Your task to perform on an android device: turn pop-ups off in chrome Image 0: 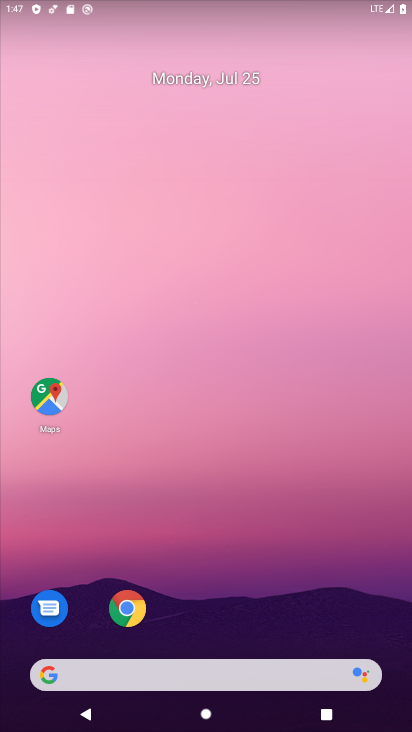
Step 0: click (133, 612)
Your task to perform on an android device: turn pop-ups off in chrome Image 1: 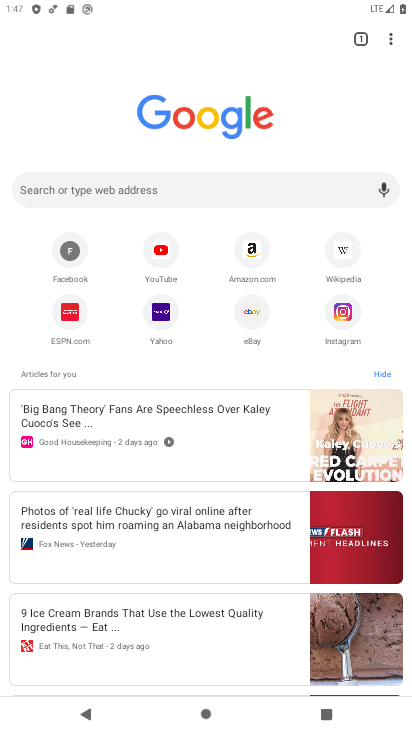
Step 1: click (396, 31)
Your task to perform on an android device: turn pop-ups off in chrome Image 2: 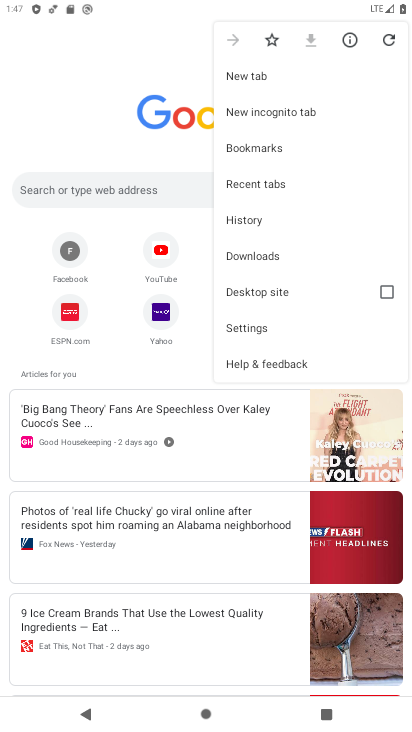
Step 2: click (250, 329)
Your task to perform on an android device: turn pop-ups off in chrome Image 3: 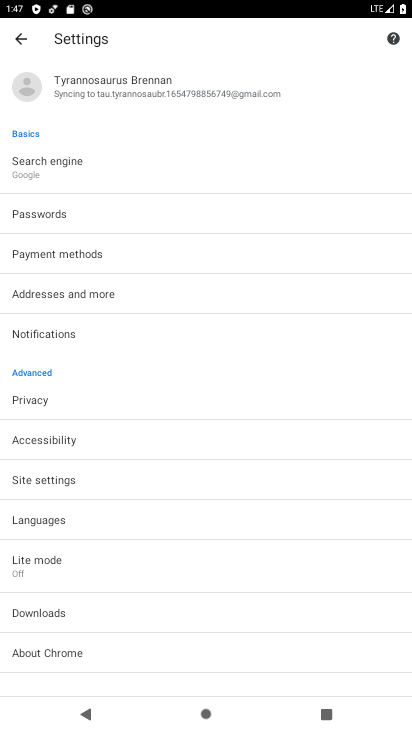
Step 3: click (24, 480)
Your task to perform on an android device: turn pop-ups off in chrome Image 4: 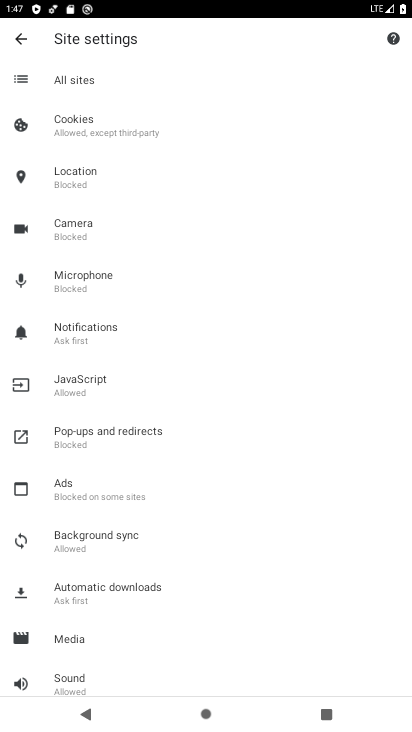
Step 4: click (108, 447)
Your task to perform on an android device: turn pop-ups off in chrome Image 5: 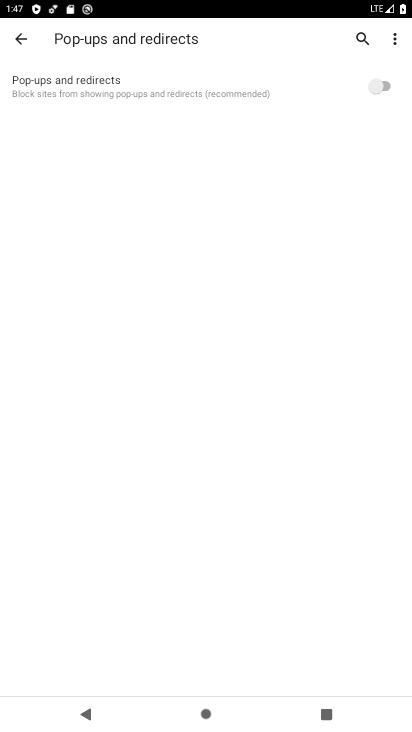
Step 5: task complete